Your task to perform on an android device: Go to sound settings Image 0: 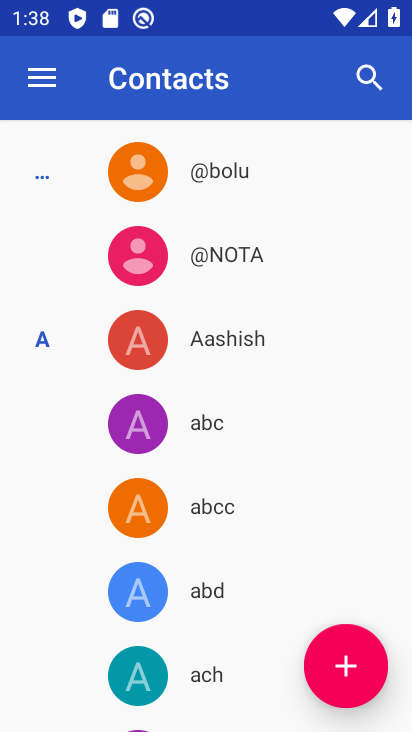
Step 0: press back button
Your task to perform on an android device: Go to sound settings Image 1: 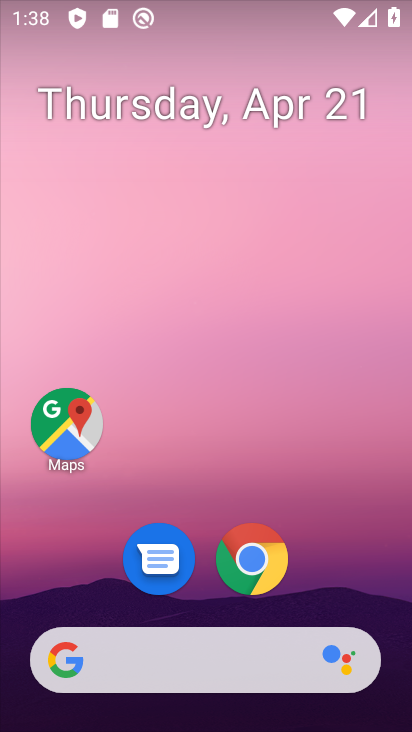
Step 1: drag from (224, 438) to (394, 24)
Your task to perform on an android device: Go to sound settings Image 2: 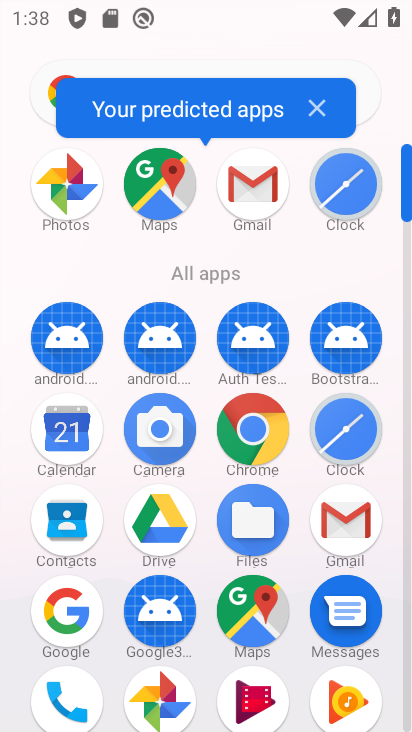
Step 2: drag from (189, 603) to (307, 265)
Your task to perform on an android device: Go to sound settings Image 3: 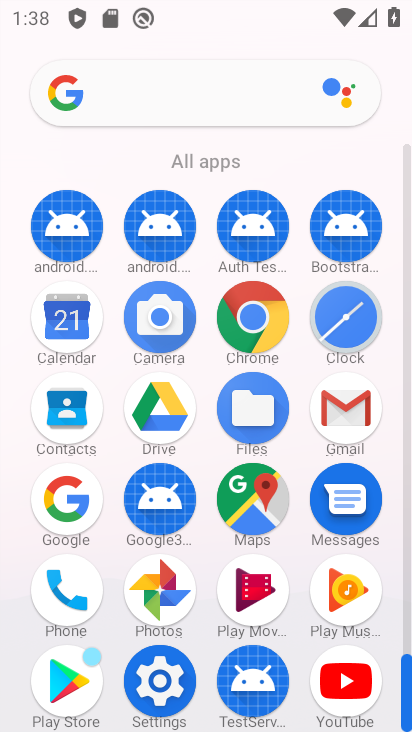
Step 3: click (165, 681)
Your task to perform on an android device: Go to sound settings Image 4: 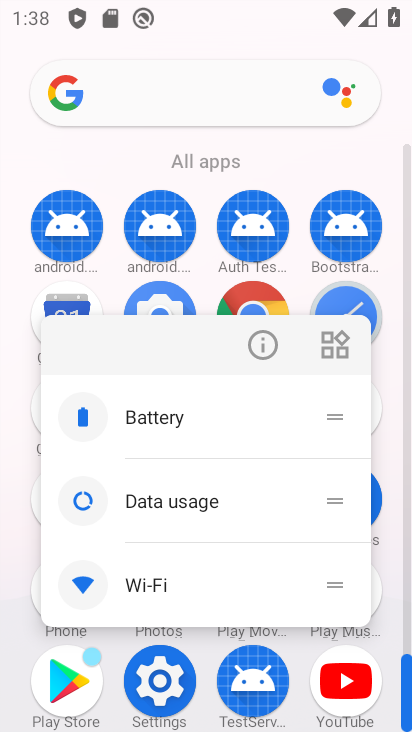
Step 4: click (162, 674)
Your task to perform on an android device: Go to sound settings Image 5: 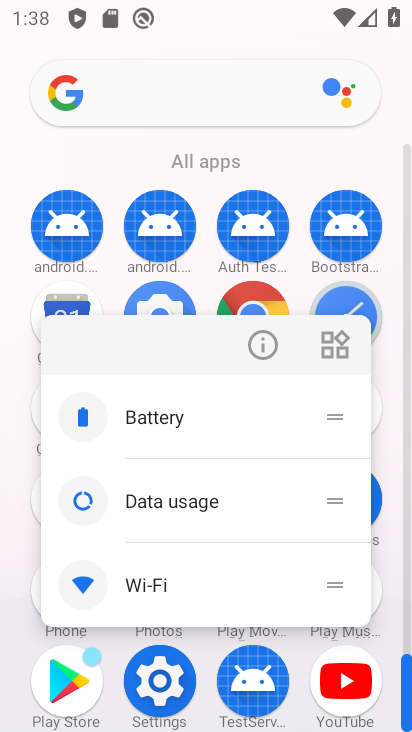
Step 5: click (155, 681)
Your task to perform on an android device: Go to sound settings Image 6: 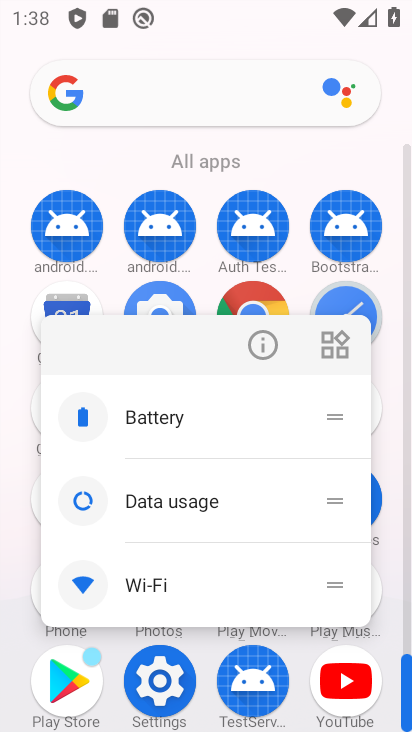
Step 6: click (180, 674)
Your task to perform on an android device: Go to sound settings Image 7: 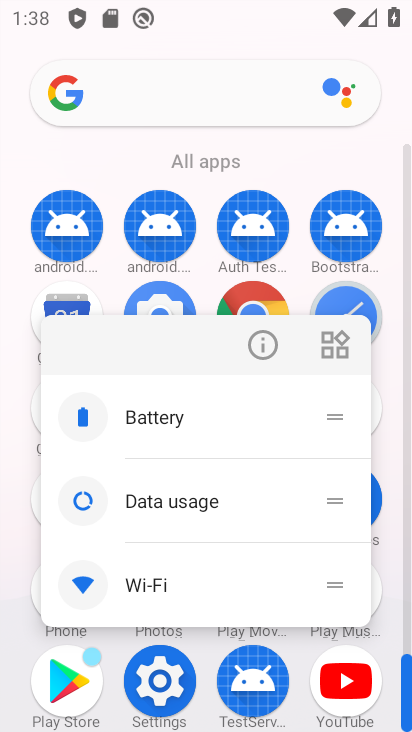
Step 7: click (181, 666)
Your task to perform on an android device: Go to sound settings Image 8: 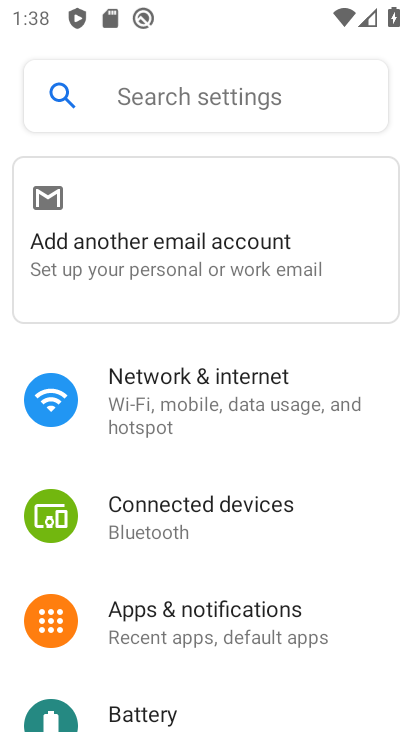
Step 8: drag from (209, 695) to (408, 186)
Your task to perform on an android device: Go to sound settings Image 9: 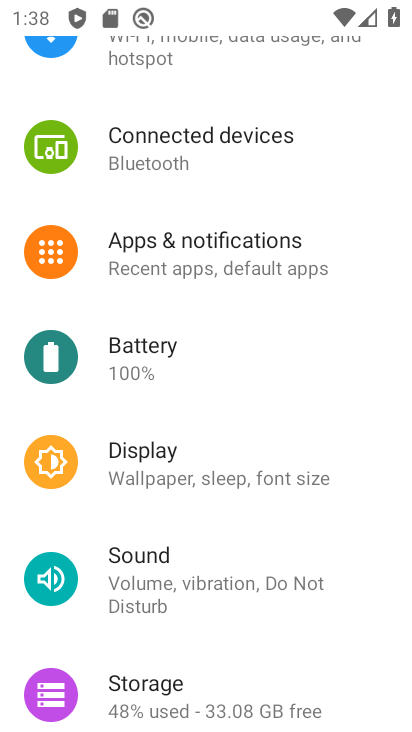
Step 9: click (212, 592)
Your task to perform on an android device: Go to sound settings Image 10: 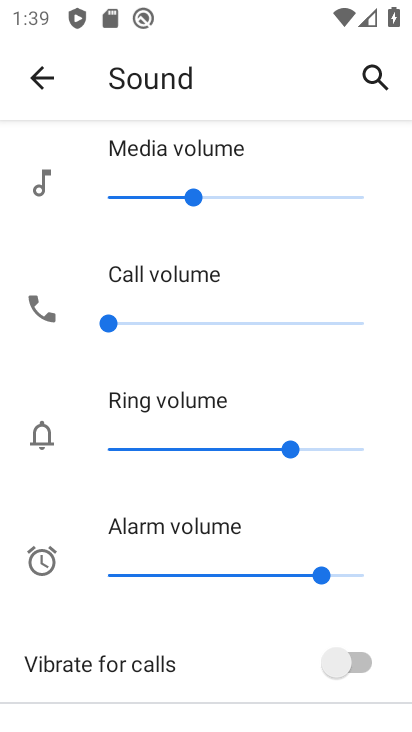
Step 10: task complete